Your task to perform on an android device: remove spam from my inbox in the gmail app Image 0: 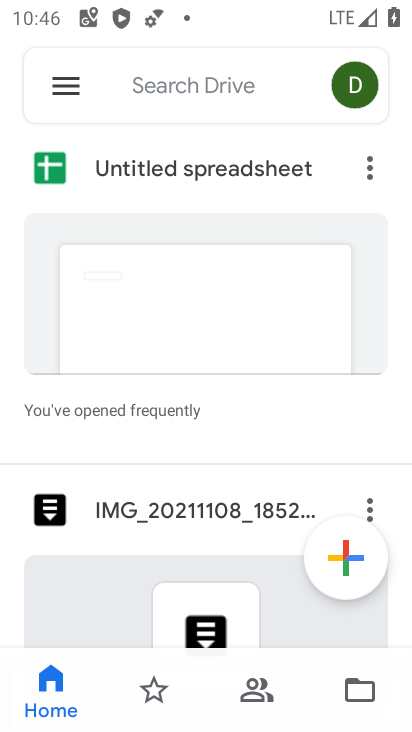
Step 0: press home button
Your task to perform on an android device: remove spam from my inbox in the gmail app Image 1: 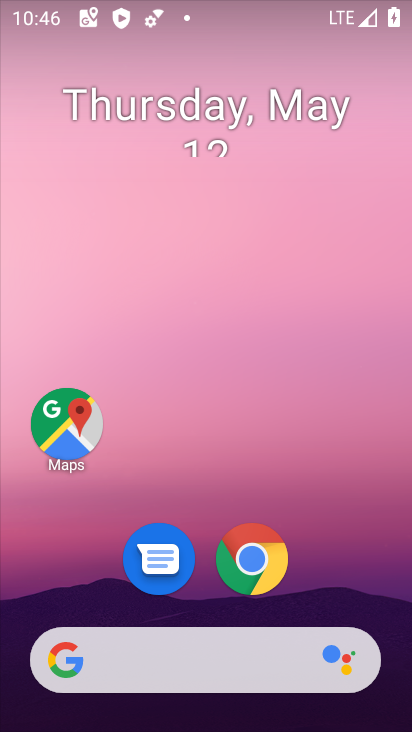
Step 1: drag from (194, 598) to (211, 181)
Your task to perform on an android device: remove spam from my inbox in the gmail app Image 2: 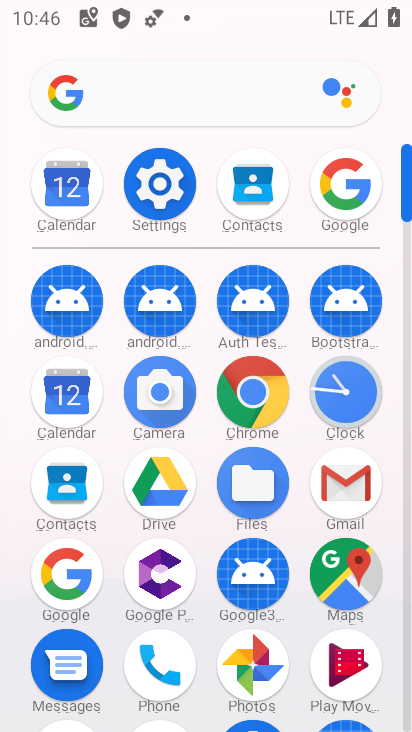
Step 2: click (351, 473)
Your task to perform on an android device: remove spam from my inbox in the gmail app Image 3: 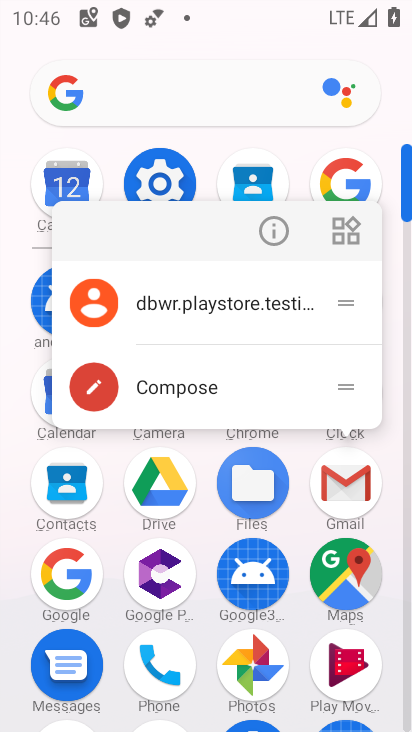
Step 3: click (358, 498)
Your task to perform on an android device: remove spam from my inbox in the gmail app Image 4: 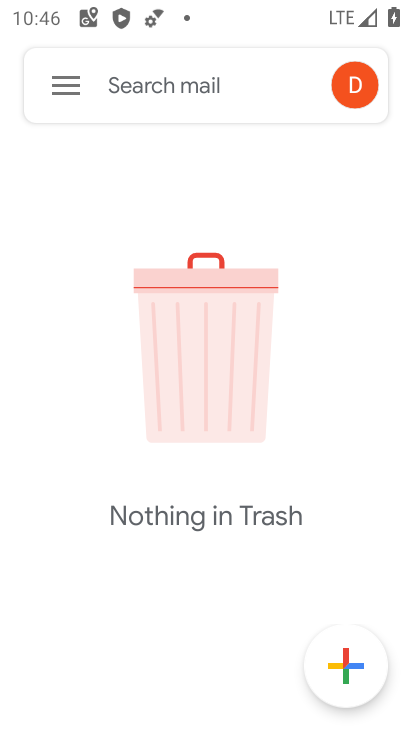
Step 4: click (65, 79)
Your task to perform on an android device: remove spam from my inbox in the gmail app Image 5: 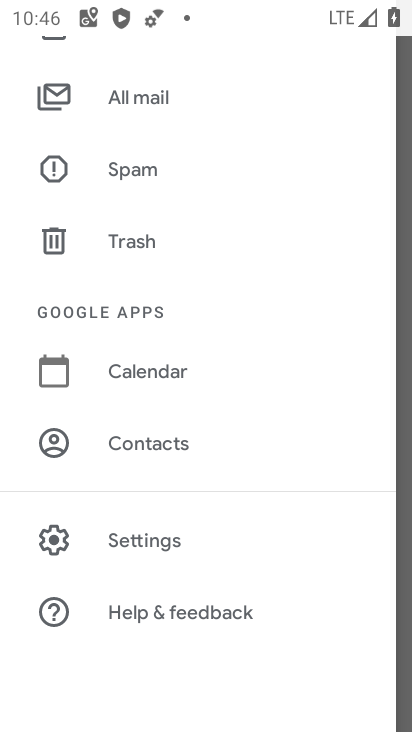
Step 5: click (191, 183)
Your task to perform on an android device: remove spam from my inbox in the gmail app Image 6: 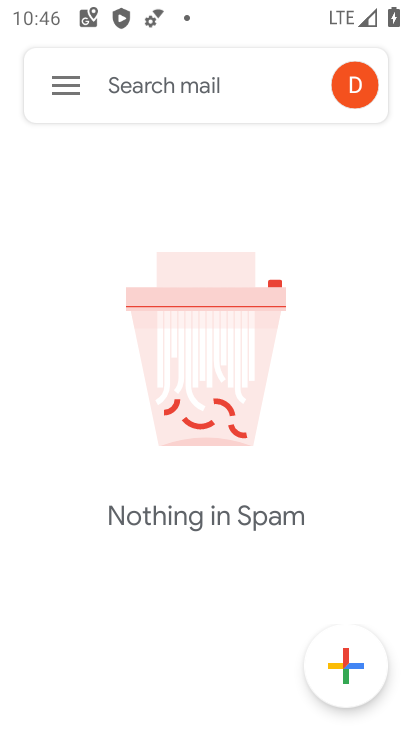
Step 6: task complete